Your task to perform on an android device: turn on location history Image 0: 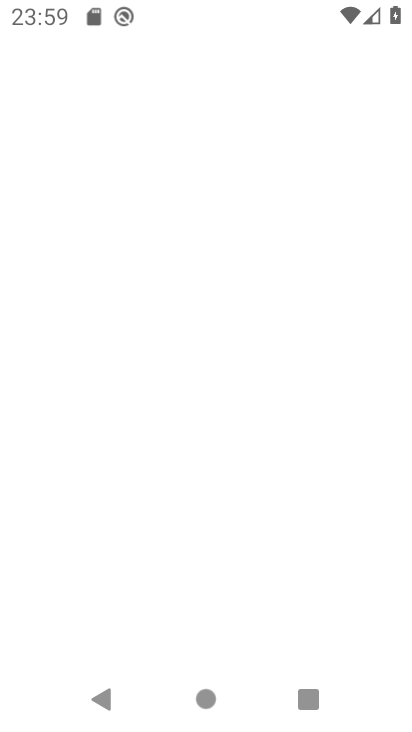
Step 0: click (247, 516)
Your task to perform on an android device: turn on location history Image 1: 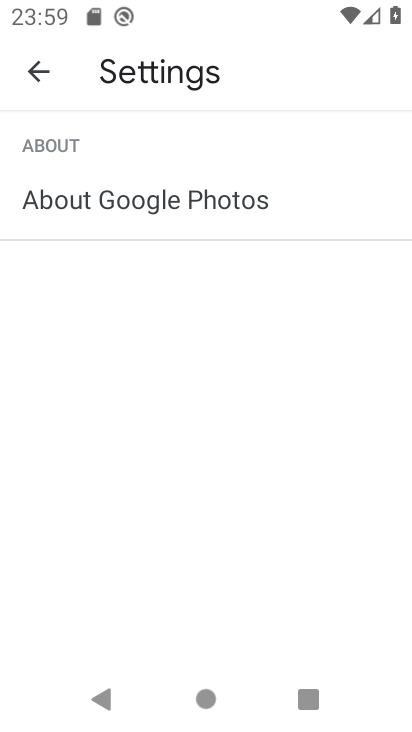
Step 1: click (29, 74)
Your task to perform on an android device: turn on location history Image 2: 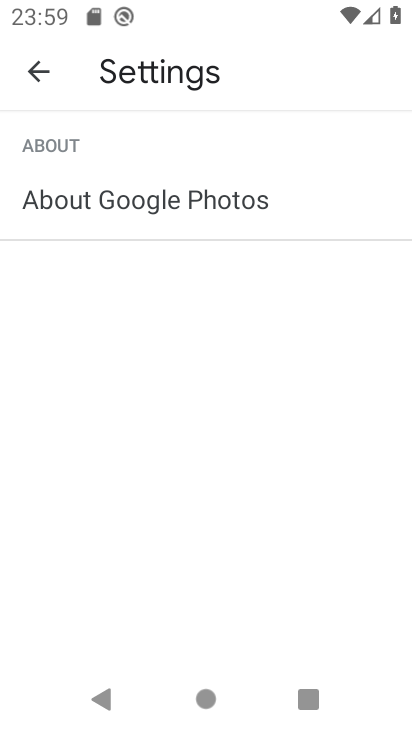
Step 2: press home button
Your task to perform on an android device: turn on location history Image 3: 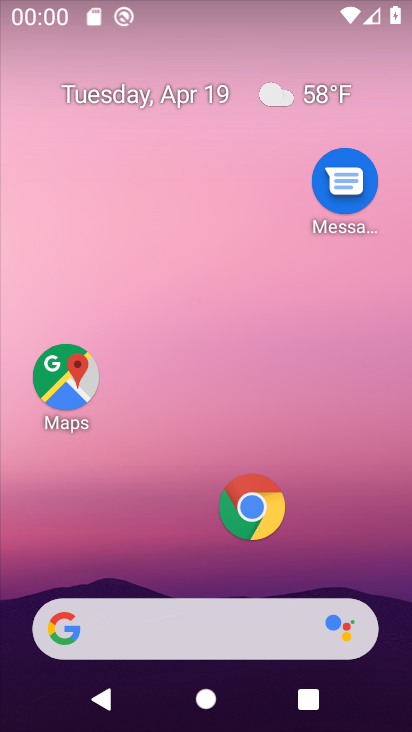
Step 3: drag from (178, 559) to (283, 20)
Your task to perform on an android device: turn on location history Image 4: 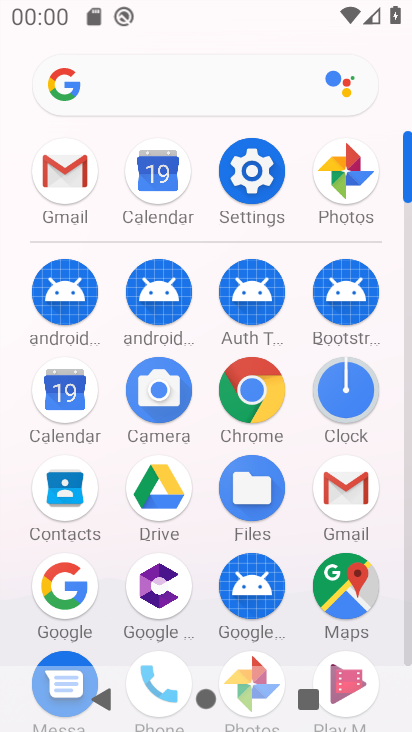
Step 4: click (258, 197)
Your task to perform on an android device: turn on location history Image 5: 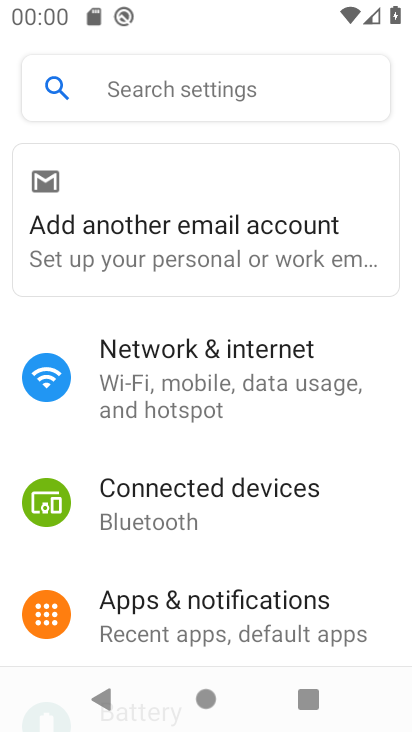
Step 5: drag from (204, 541) to (231, 254)
Your task to perform on an android device: turn on location history Image 6: 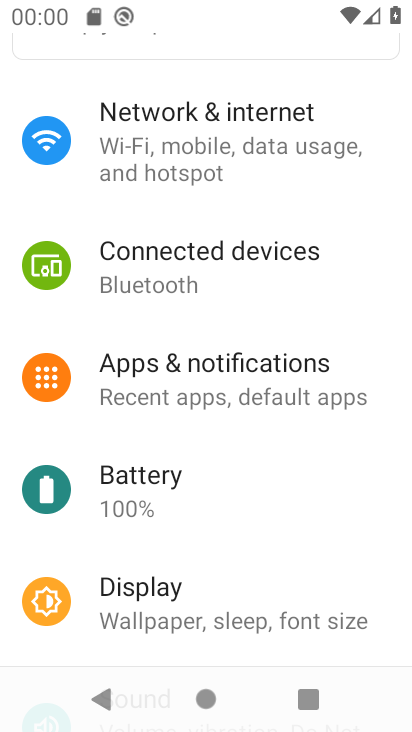
Step 6: drag from (167, 580) to (300, 28)
Your task to perform on an android device: turn on location history Image 7: 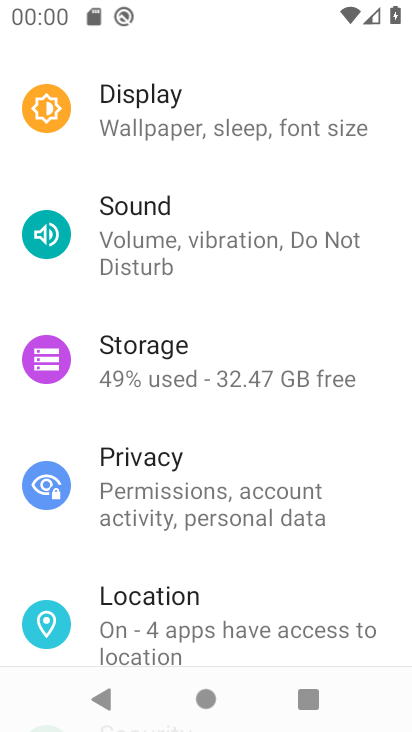
Step 7: click (166, 592)
Your task to perform on an android device: turn on location history Image 8: 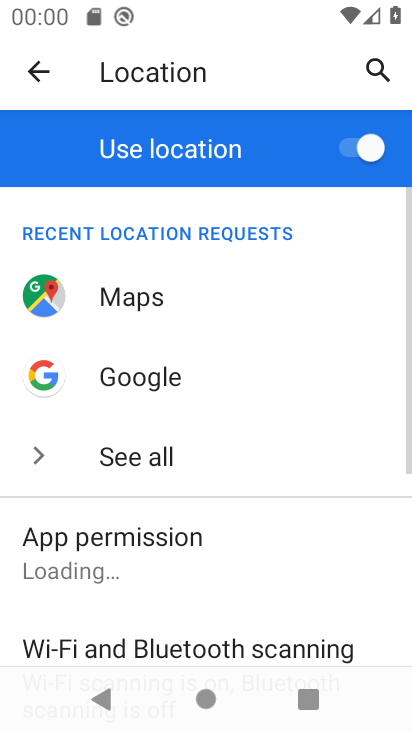
Step 8: drag from (152, 591) to (243, 198)
Your task to perform on an android device: turn on location history Image 9: 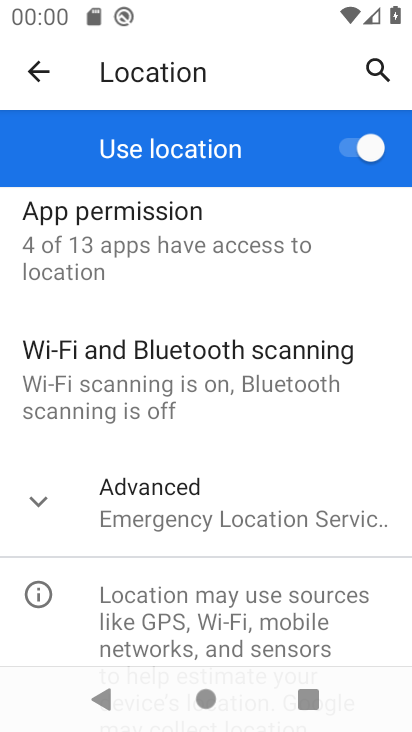
Step 9: click (177, 510)
Your task to perform on an android device: turn on location history Image 10: 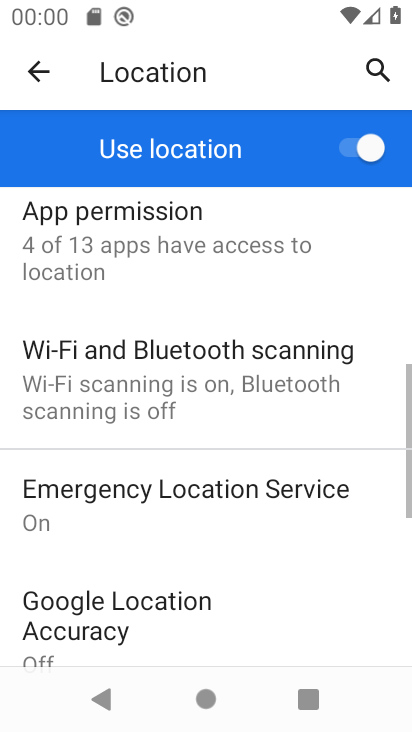
Step 10: drag from (155, 555) to (247, 189)
Your task to perform on an android device: turn on location history Image 11: 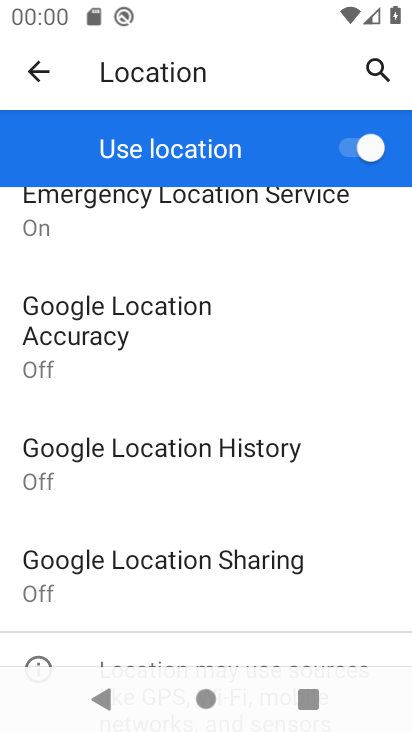
Step 11: click (192, 458)
Your task to perform on an android device: turn on location history Image 12: 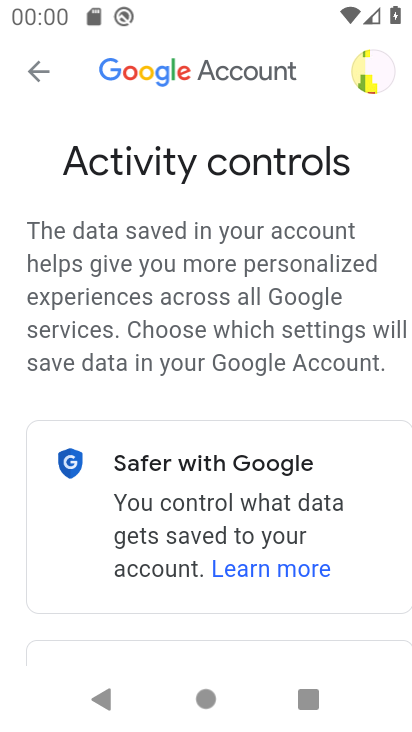
Step 12: task complete